Your task to perform on an android device: Go to Amazon Image 0: 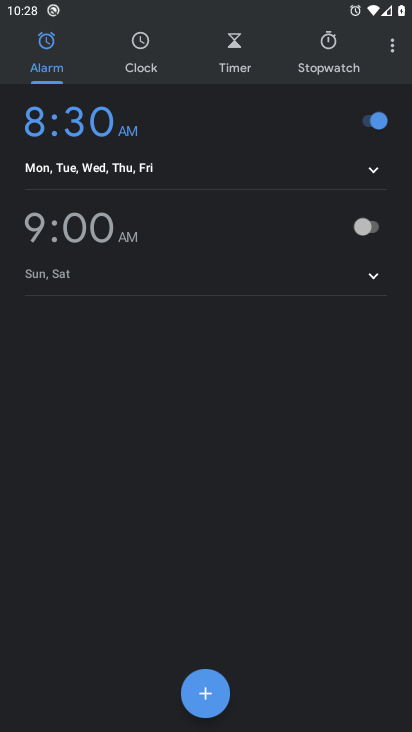
Step 0: press home button
Your task to perform on an android device: Go to Amazon Image 1: 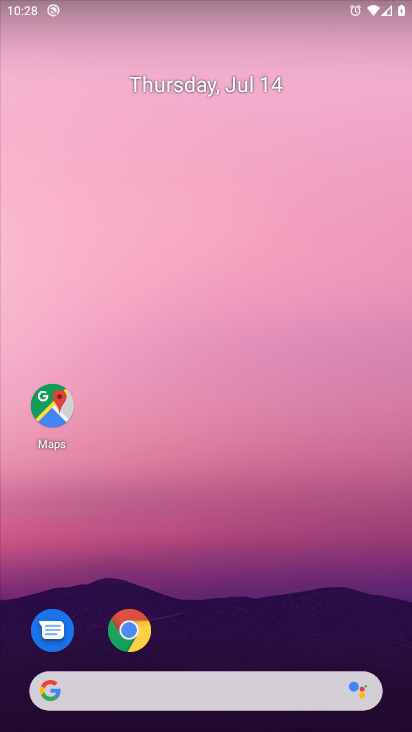
Step 1: click (137, 675)
Your task to perform on an android device: Go to Amazon Image 2: 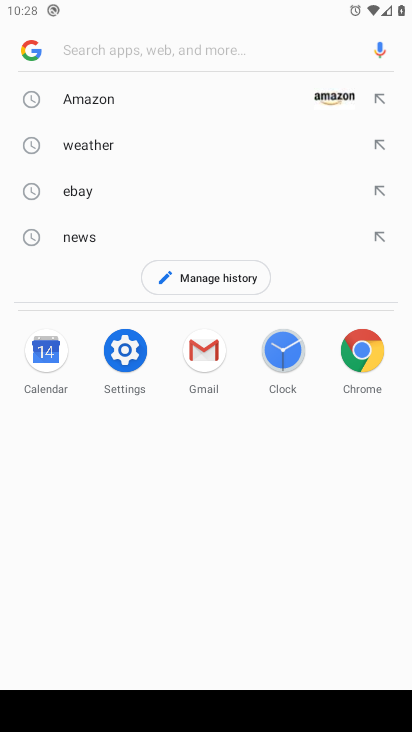
Step 2: type "Amazon"
Your task to perform on an android device: Go to Amazon Image 3: 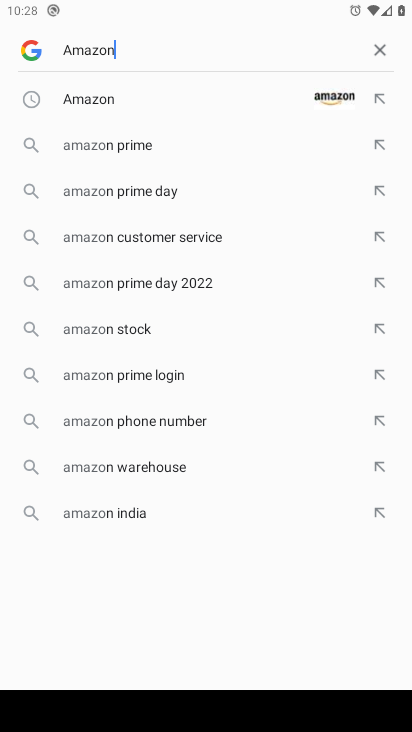
Step 3: type ""
Your task to perform on an android device: Go to Amazon Image 4: 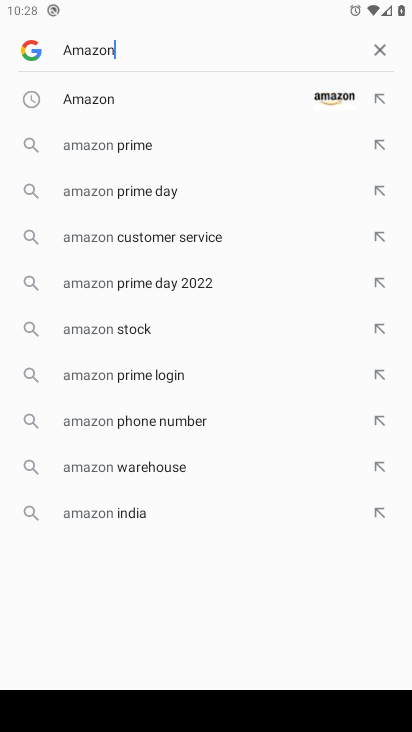
Step 4: click (90, 94)
Your task to perform on an android device: Go to Amazon Image 5: 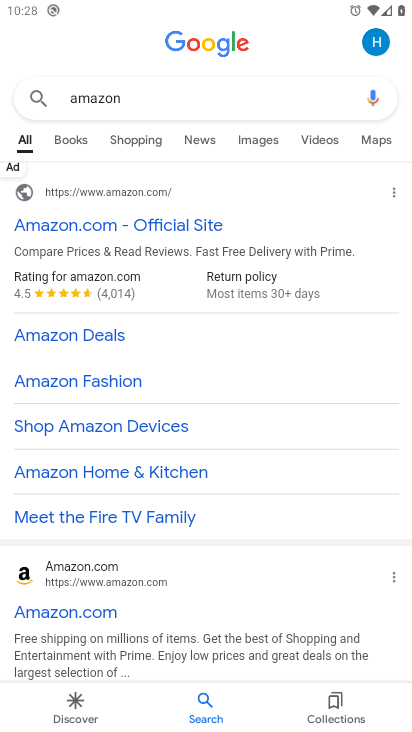
Step 5: task complete